Your task to perform on an android device: Is it going to rain this weekend? Image 0: 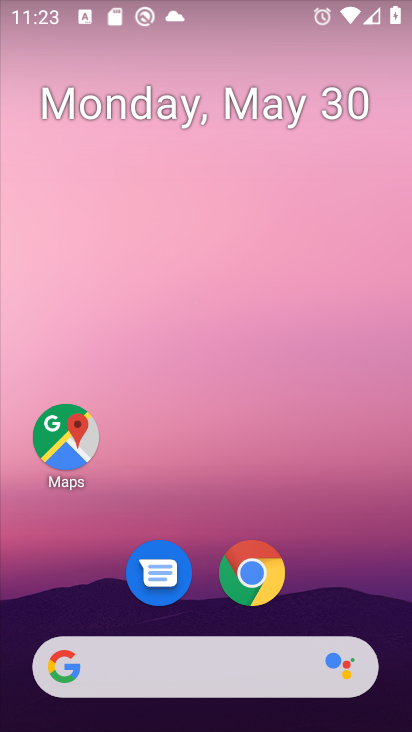
Step 0: drag from (189, 649) to (220, 206)
Your task to perform on an android device: Is it going to rain this weekend? Image 1: 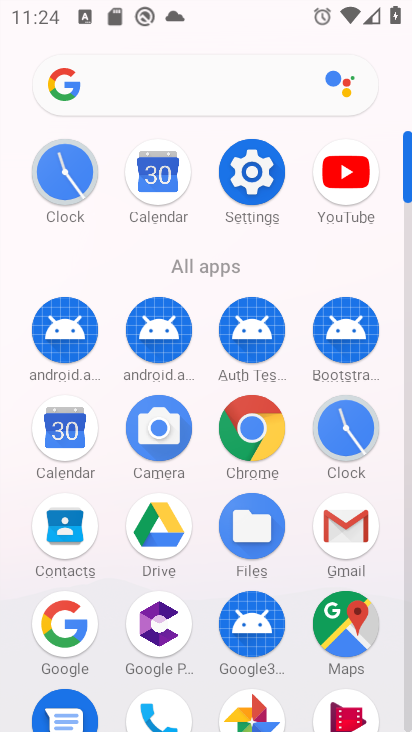
Step 1: click (69, 649)
Your task to perform on an android device: Is it going to rain this weekend? Image 2: 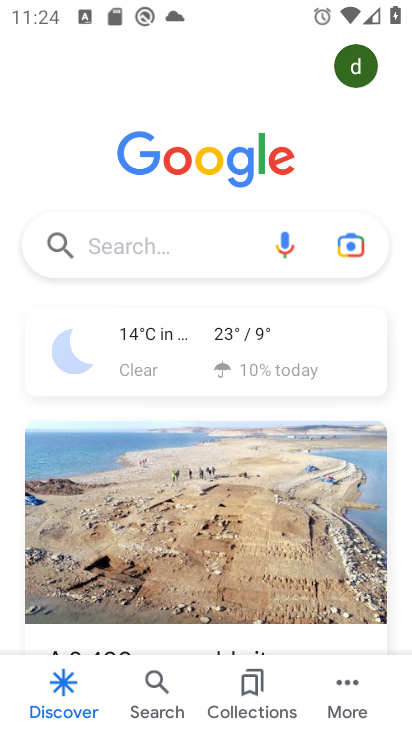
Step 2: click (173, 231)
Your task to perform on an android device: Is it going to rain this weekend? Image 3: 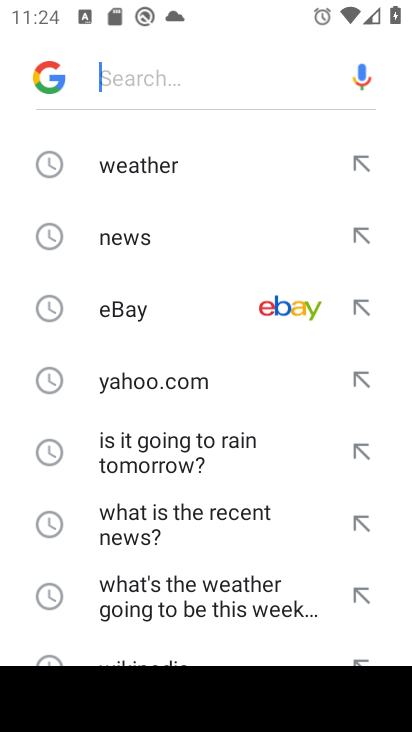
Step 3: click (175, 155)
Your task to perform on an android device: Is it going to rain this weekend? Image 4: 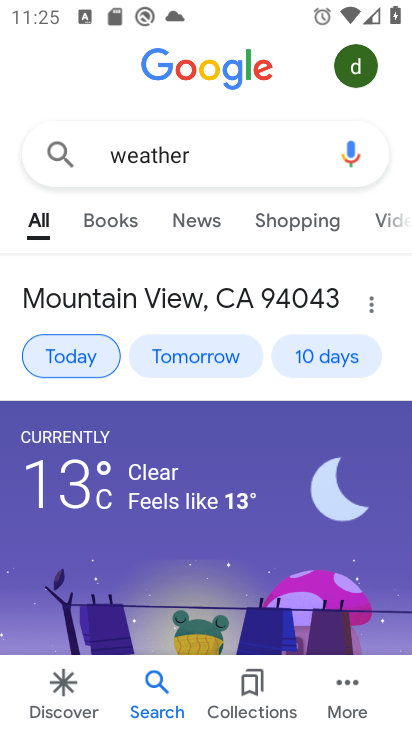
Step 4: click (360, 361)
Your task to perform on an android device: Is it going to rain this weekend? Image 5: 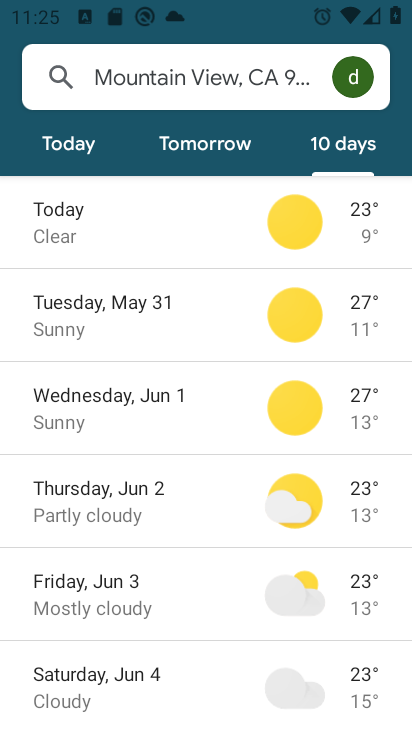
Step 5: task complete